Your task to perform on an android device: Do I have any events today? Image 0: 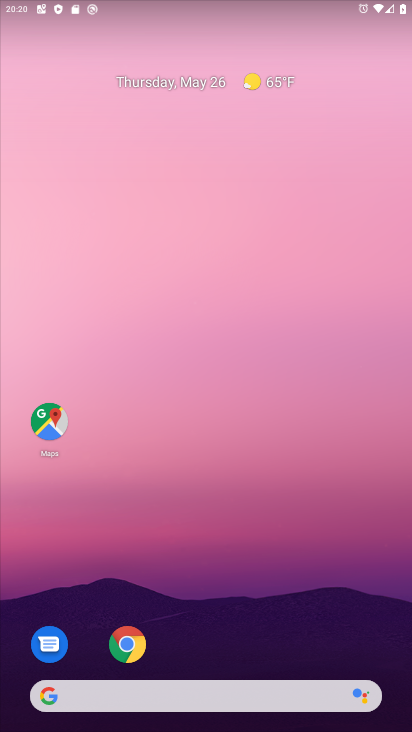
Step 0: drag from (150, 675) to (246, 179)
Your task to perform on an android device: Do I have any events today? Image 1: 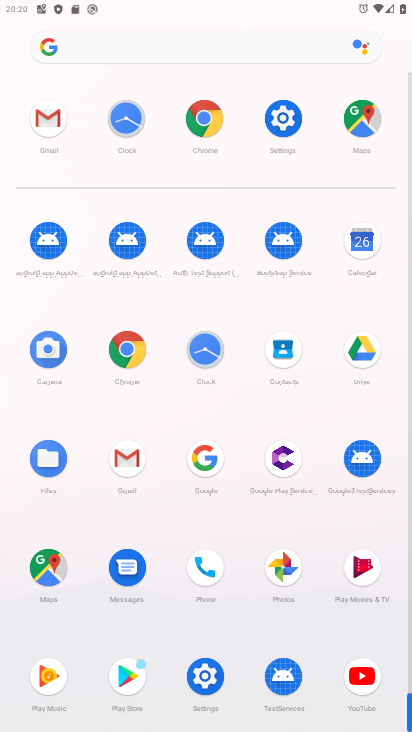
Step 1: click (363, 231)
Your task to perform on an android device: Do I have any events today? Image 2: 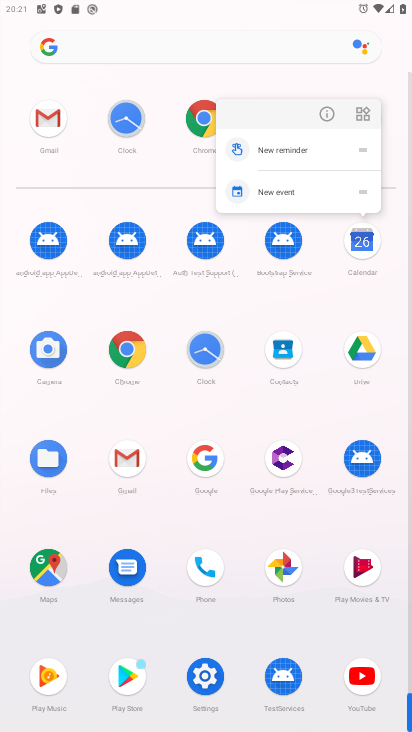
Step 2: click (329, 115)
Your task to perform on an android device: Do I have any events today? Image 3: 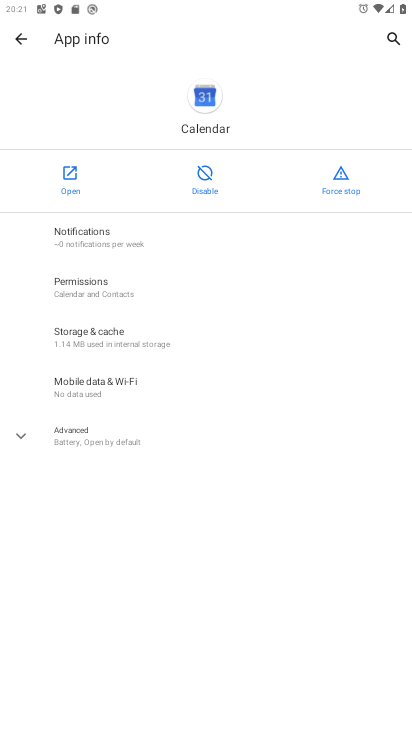
Step 3: click (81, 176)
Your task to perform on an android device: Do I have any events today? Image 4: 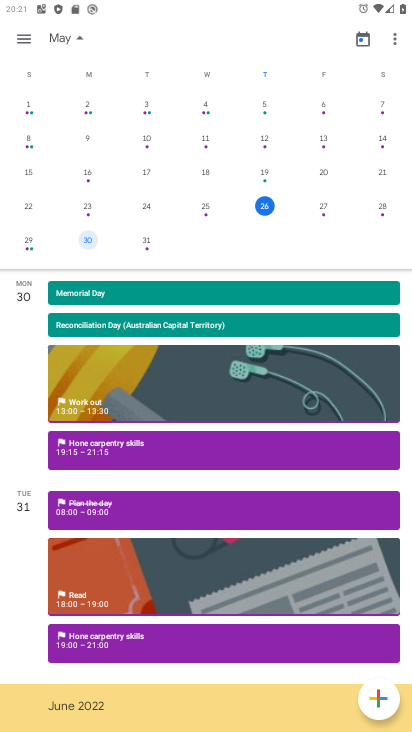
Step 4: drag from (189, 661) to (246, 214)
Your task to perform on an android device: Do I have any events today? Image 5: 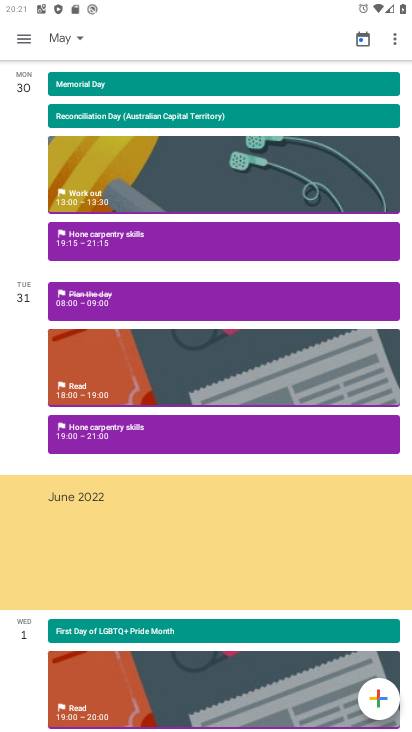
Step 5: click (66, 48)
Your task to perform on an android device: Do I have any events today? Image 6: 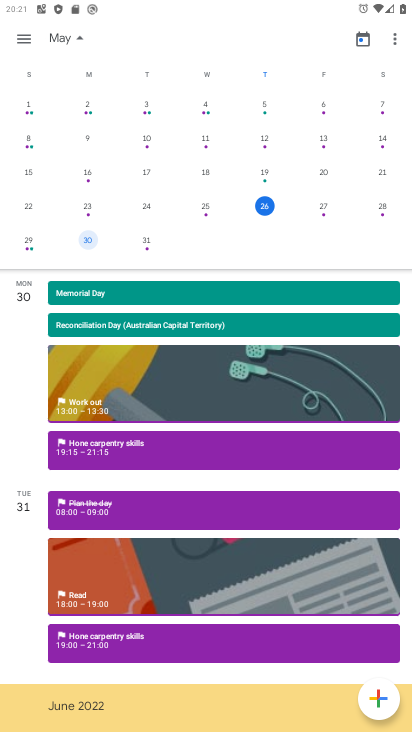
Step 6: click (268, 212)
Your task to perform on an android device: Do I have any events today? Image 7: 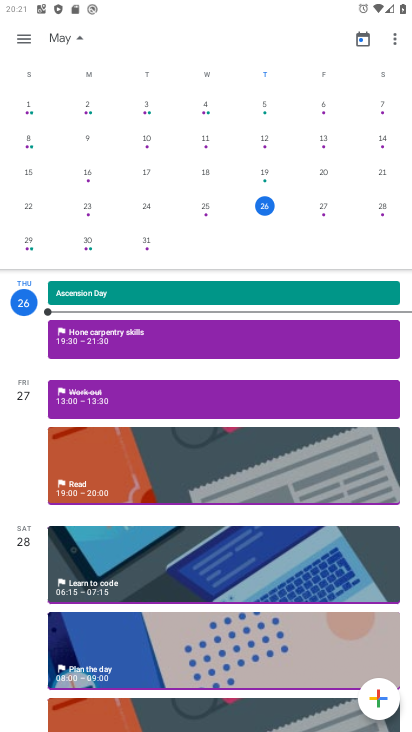
Step 7: task complete